Your task to perform on an android device: empty trash in the gmail app Image 0: 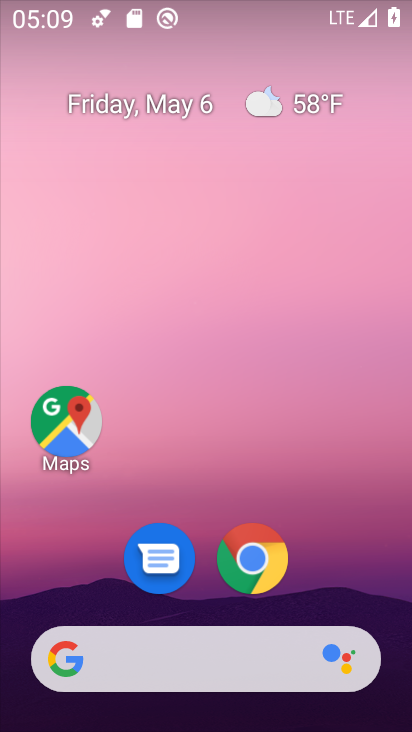
Step 0: drag from (324, 604) to (309, 43)
Your task to perform on an android device: empty trash in the gmail app Image 1: 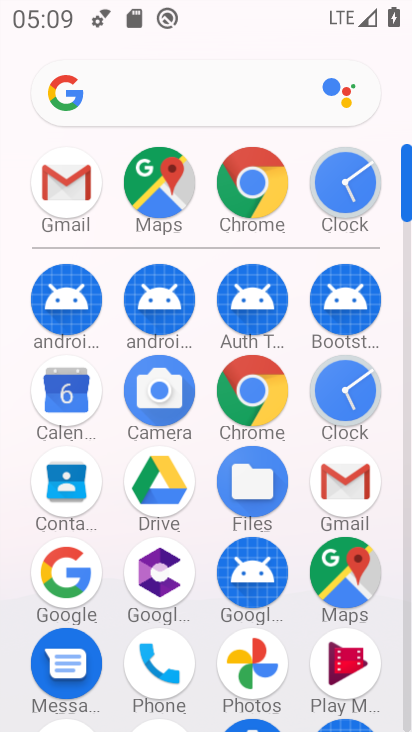
Step 1: click (349, 481)
Your task to perform on an android device: empty trash in the gmail app Image 2: 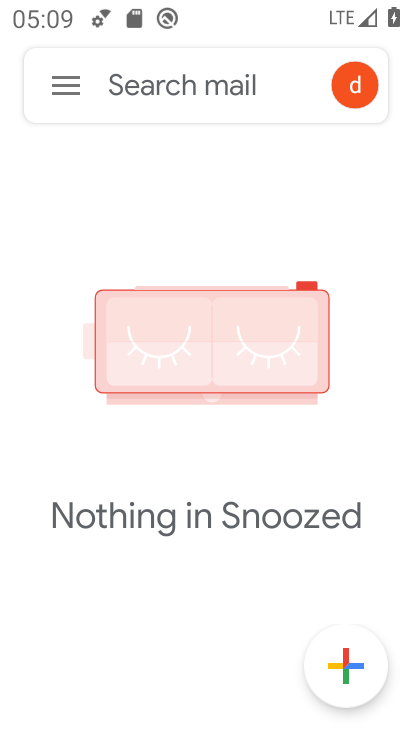
Step 2: click (50, 67)
Your task to perform on an android device: empty trash in the gmail app Image 3: 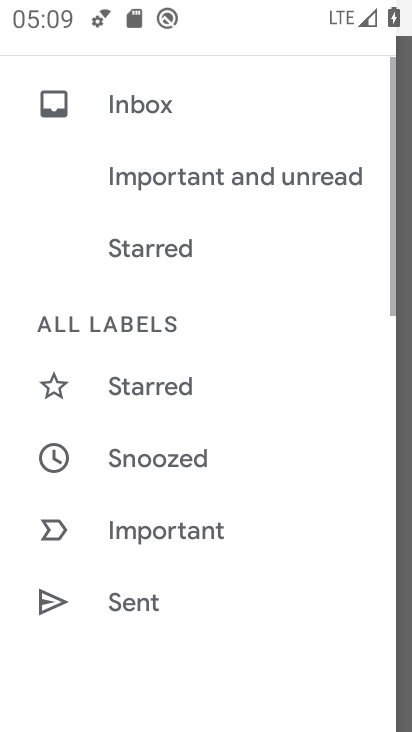
Step 3: drag from (235, 608) to (290, 84)
Your task to perform on an android device: empty trash in the gmail app Image 4: 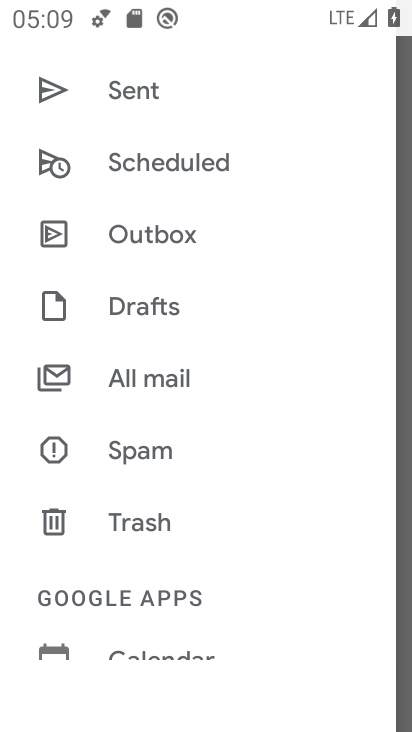
Step 4: click (174, 532)
Your task to perform on an android device: empty trash in the gmail app Image 5: 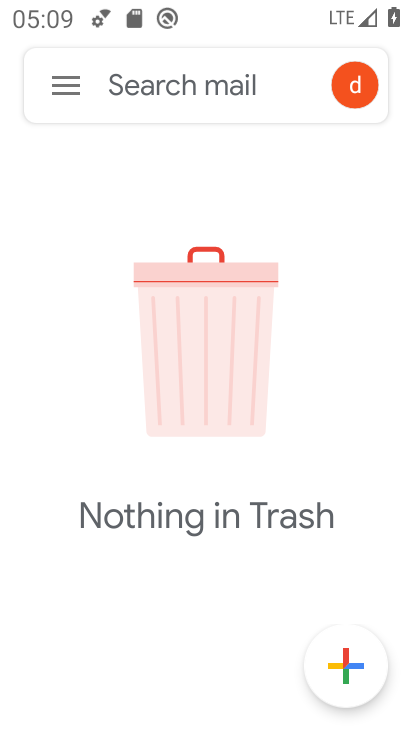
Step 5: task complete